Your task to perform on an android device: Go to sound settings Image 0: 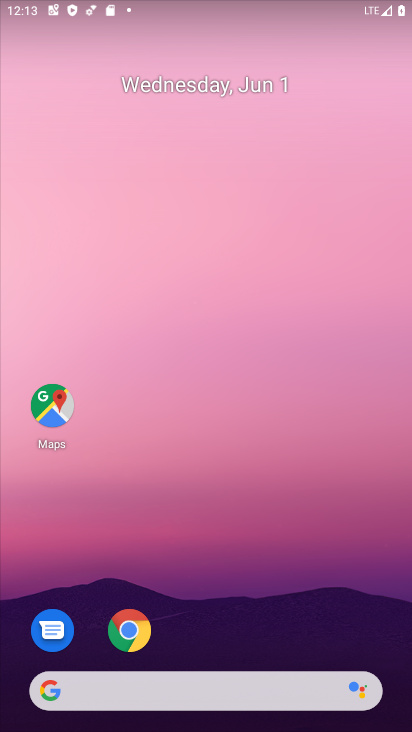
Step 0: press home button
Your task to perform on an android device: Go to sound settings Image 1: 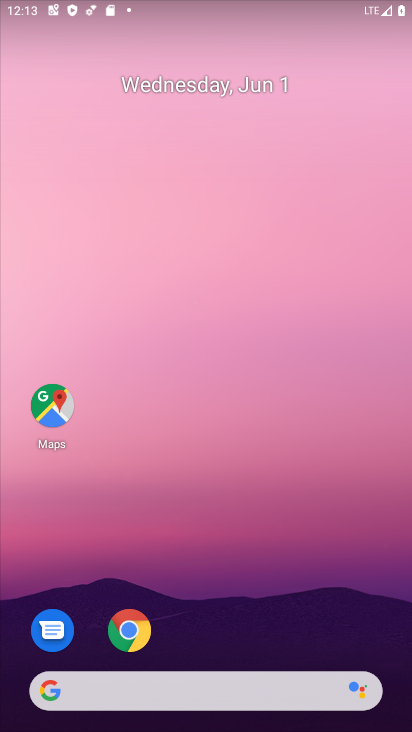
Step 1: drag from (312, 580) to (315, 126)
Your task to perform on an android device: Go to sound settings Image 2: 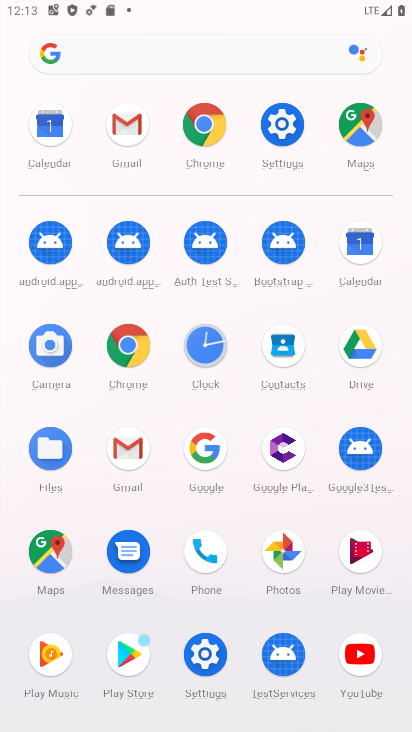
Step 2: click (288, 132)
Your task to perform on an android device: Go to sound settings Image 3: 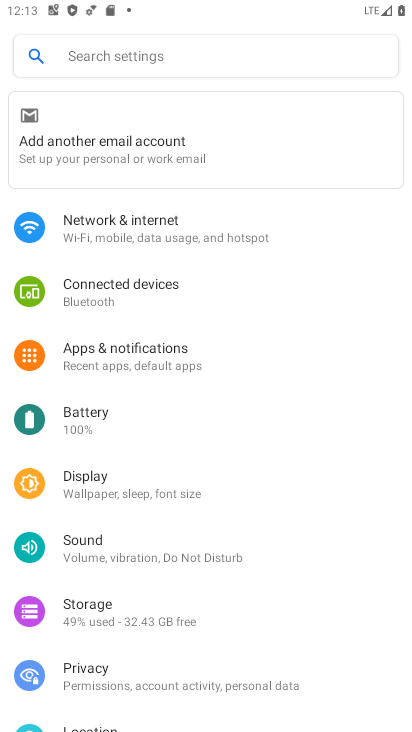
Step 3: click (167, 554)
Your task to perform on an android device: Go to sound settings Image 4: 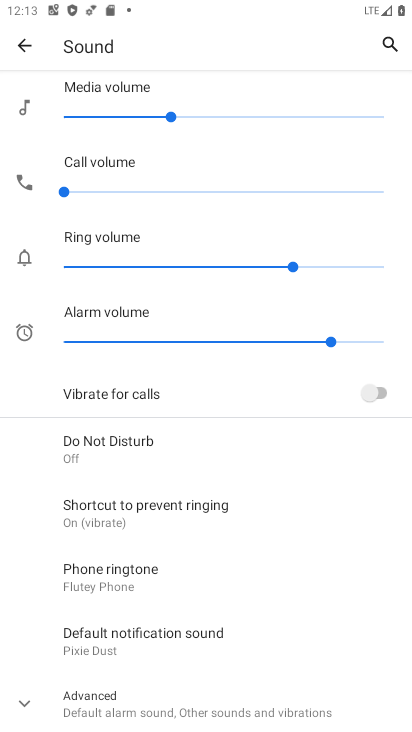
Step 4: task complete